Your task to perform on an android device: toggle pop-ups in chrome Image 0: 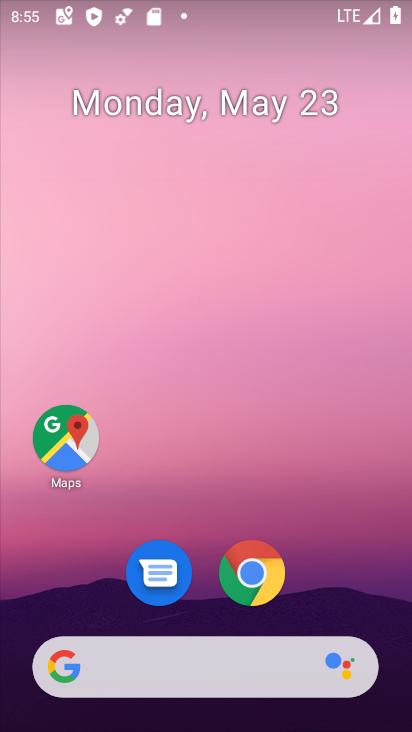
Step 0: click (256, 562)
Your task to perform on an android device: toggle pop-ups in chrome Image 1: 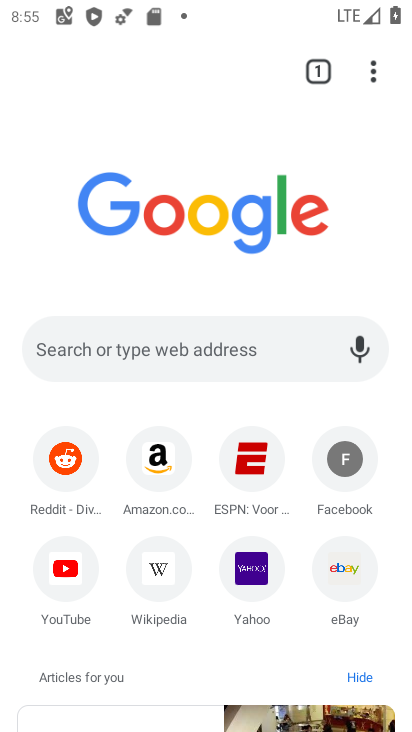
Step 1: click (369, 69)
Your task to perform on an android device: toggle pop-ups in chrome Image 2: 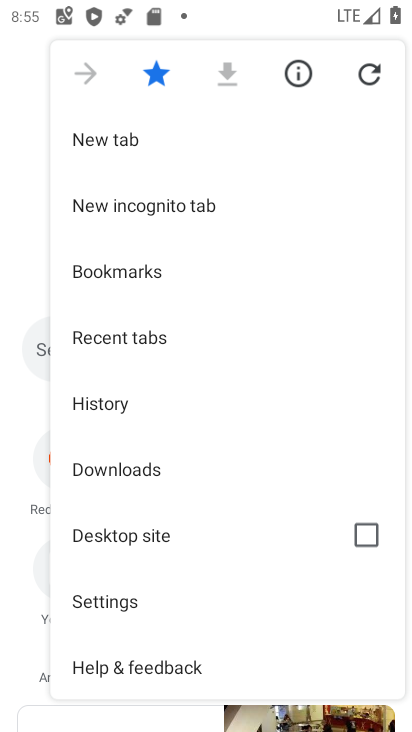
Step 2: click (133, 602)
Your task to perform on an android device: toggle pop-ups in chrome Image 3: 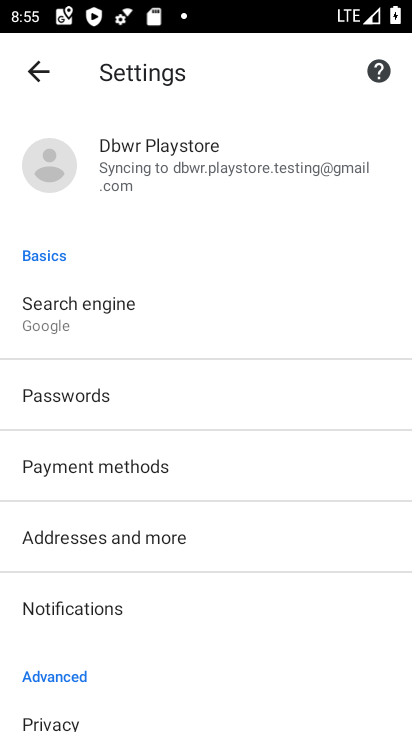
Step 3: drag from (179, 656) to (251, 275)
Your task to perform on an android device: toggle pop-ups in chrome Image 4: 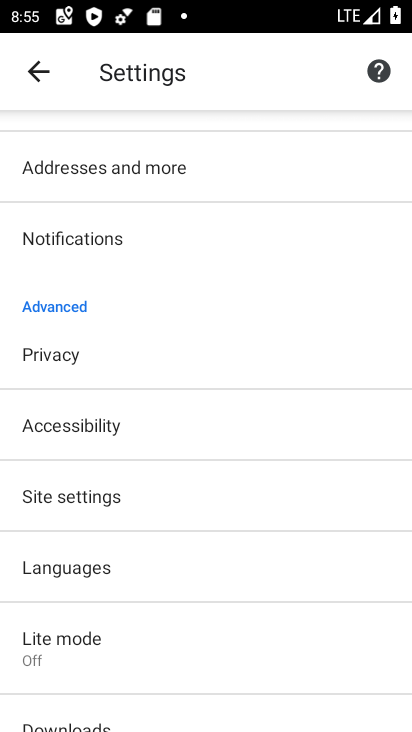
Step 4: click (202, 491)
Your task to perform on an android device: toggle pop-ups in chrome Image 5: 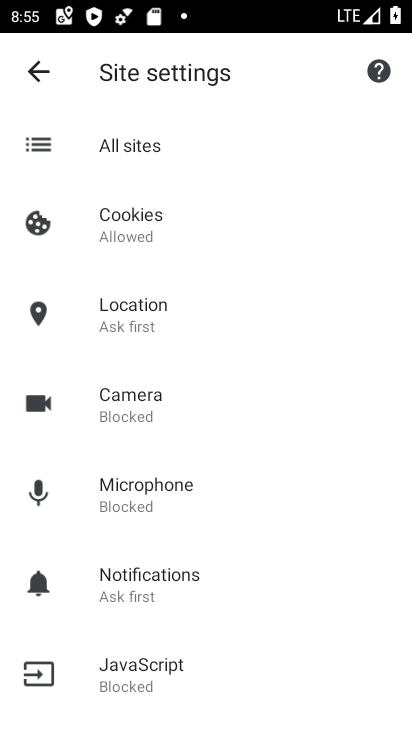
Step 5: drag from (287, 591) to (325, 298)
Your task to perform on an android device: toggle pop-ups in chrome Image 6: 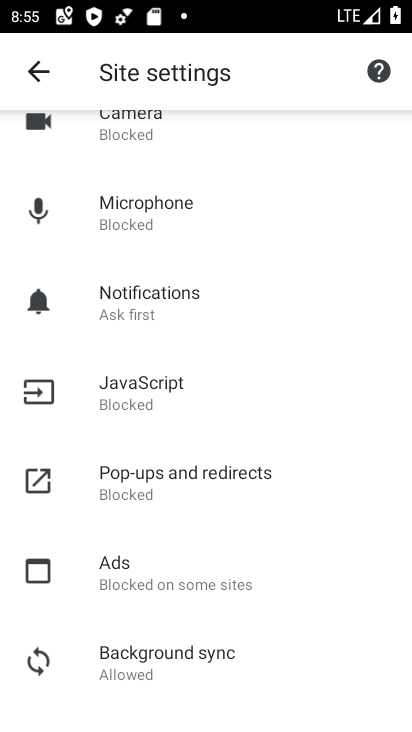
Step 6: click (250, 477)
Your task to perform on an android device: toggle pop-ups in chrome Image 7: 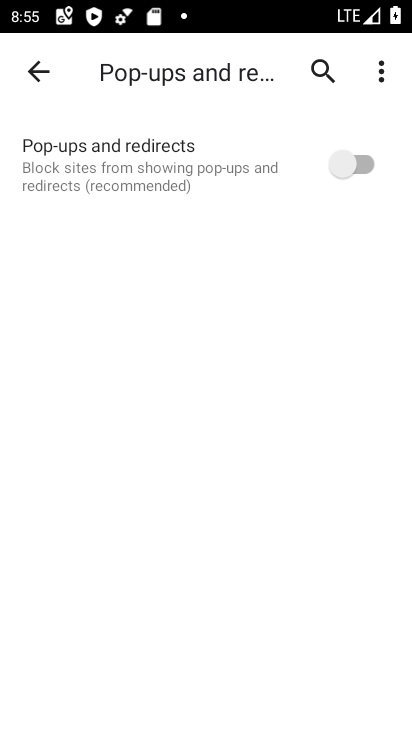
Step 7: click (338, 154)
Your task to perform on an android device: toggle pop-ups in chrome Image 8: 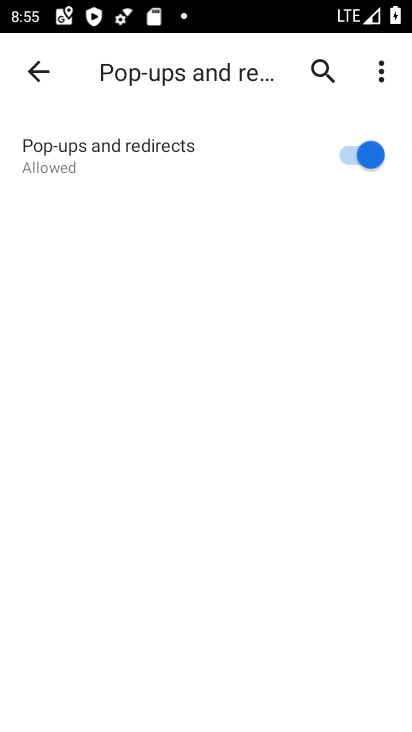
Step 8: task complete